Your task to perform on an android device: star an email in the gmail app Image 0: 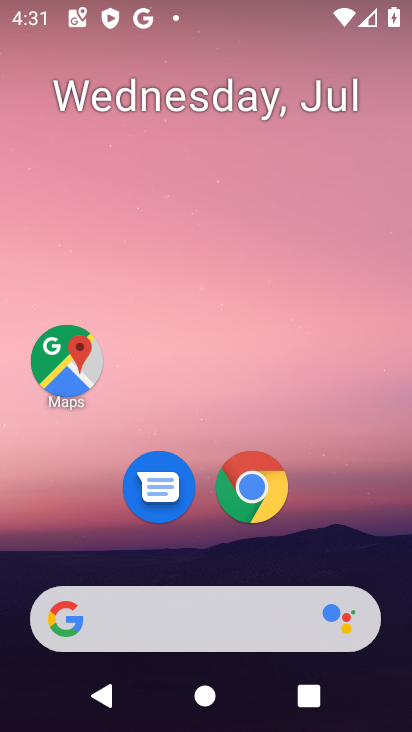
Step 0: drag from (162, 547) to (235, 35)
Your task to perform on an android device: star an email in the gmail app Image 1: 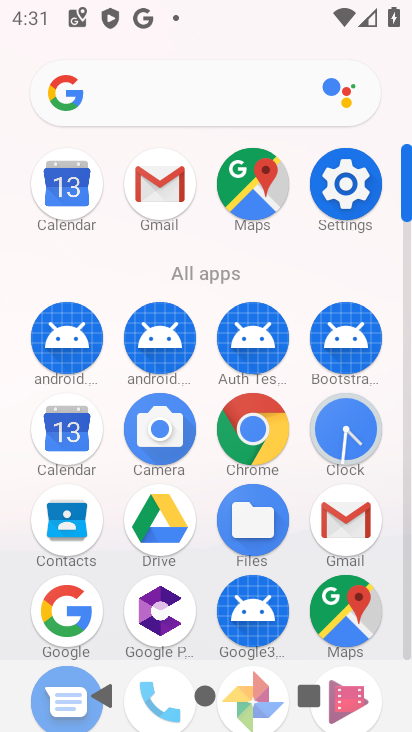
Step 1: click (145, 169)
Your task to perform on an android device: star an email in the gmail app Image 2: 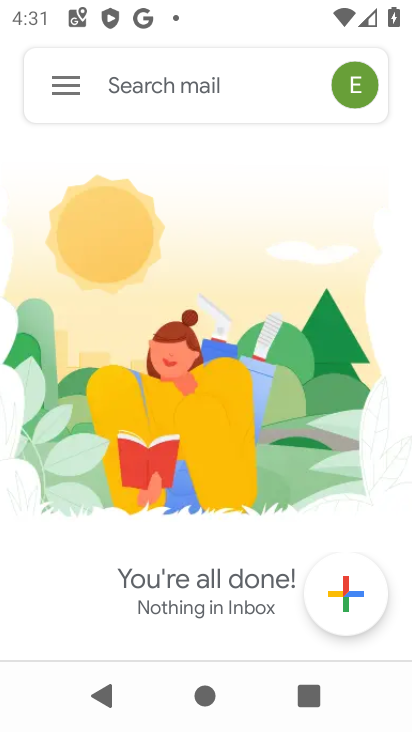
Step 2: click (79, 89)
Your task to perform on an android device: star an email in the gmail app Image 3: 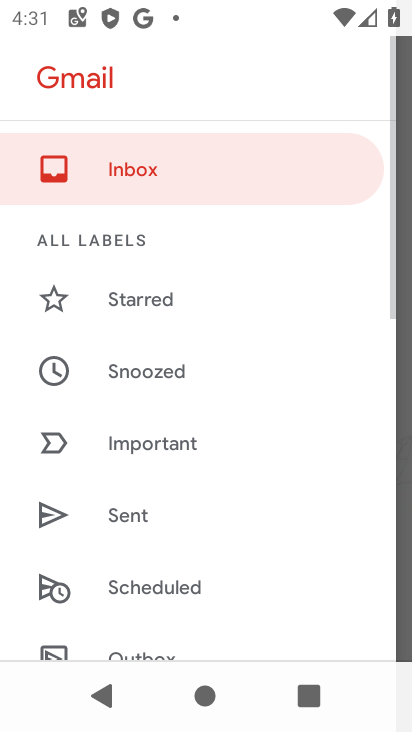
Step 3: drag from (202, 603) to (362, 69)
Your task to perform on an android device: star an email in the gmail app Image 4: 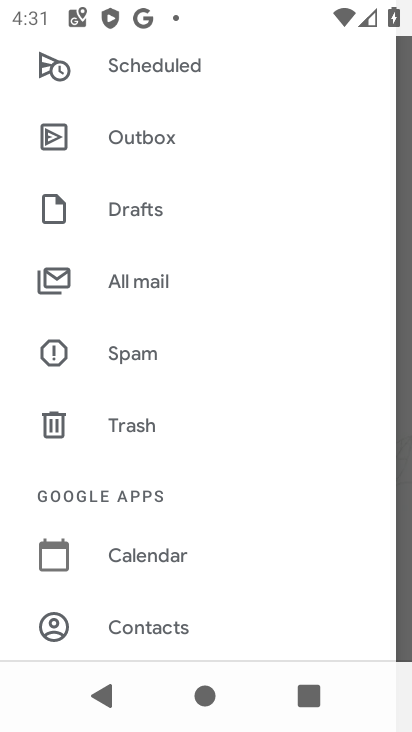
Step 4: click (158, 277)
Your task to perform on an android device: star an email in the gmail app Image 5: 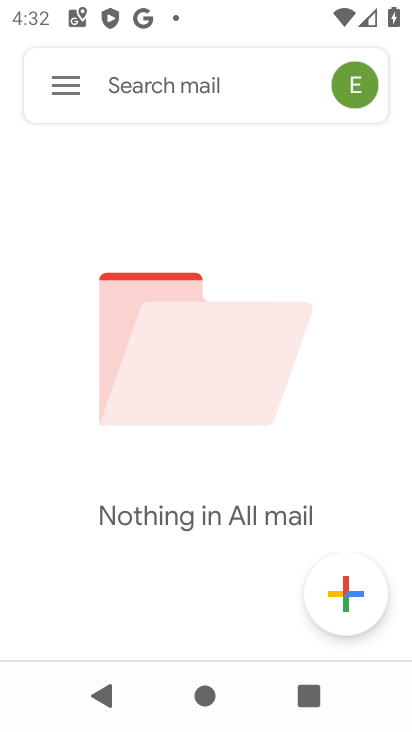
Step 5: task complete